Your task to perform on an android device: change the clock display to show seconds Image 0: 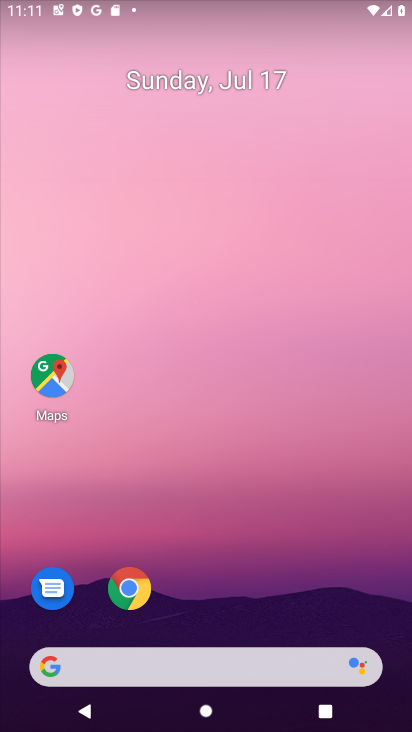
Step 0: drag from (217, 609) to (240, 199)
Your task to perform on an android device: change the clock display to show seconds Image 1: 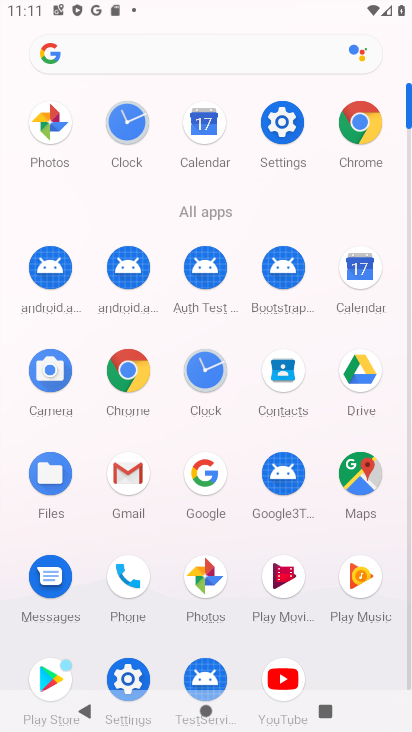
Step 1: click (127, 115)
Your task to perform on an android device: change the clock display to show seconds Image 2: 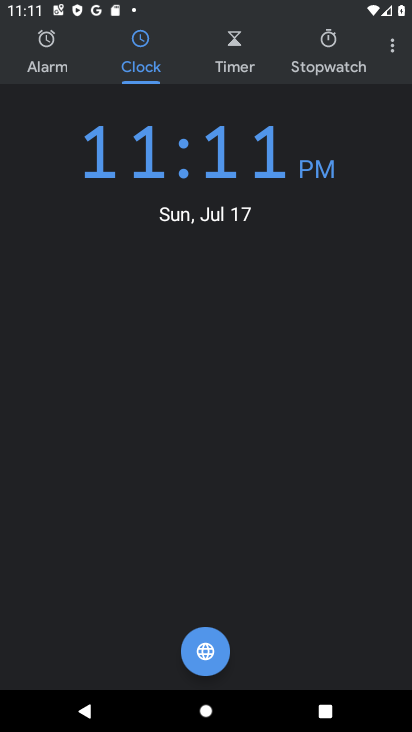
Step 2: click (389, 43)
Your task to perform on an android device: change the clock display to show seconds Image 3: 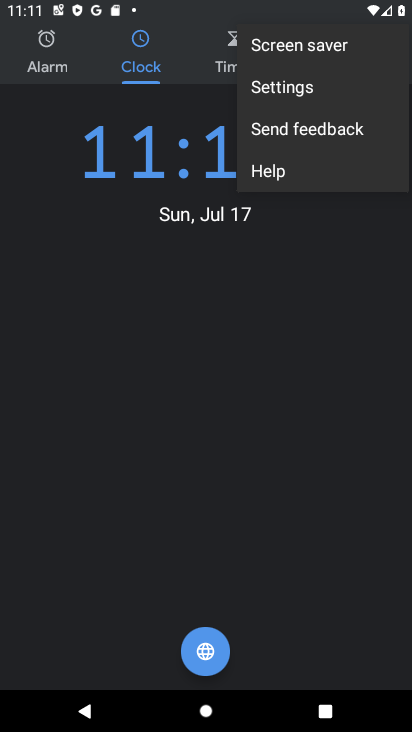
Step 3: click (328, 90)
Your task to perform on an android device: change the clock display to show seconds Image 4: 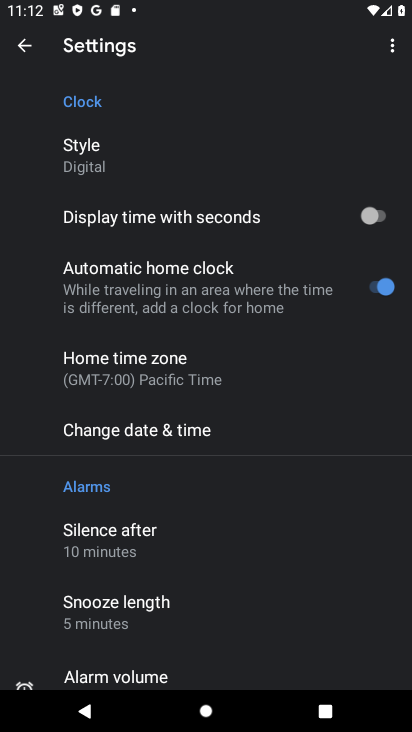
Step 4: click (379, 212)
Your task to perform on an android device: change the clock display to show seconds Image 5: 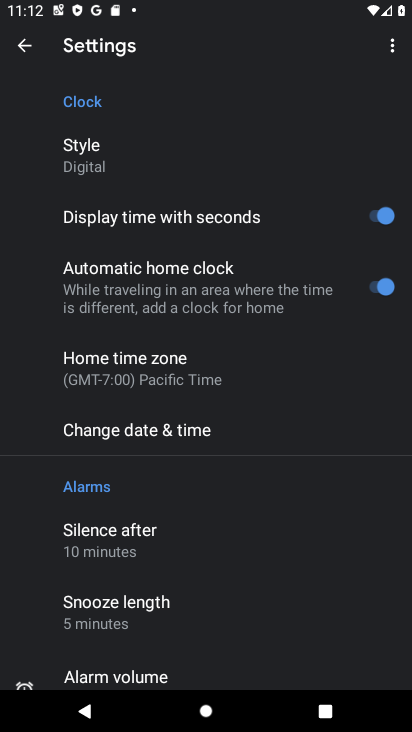
Step 5: task complete